Your task to perform on an android device: manage bookmarks in the chrome app Image 0: 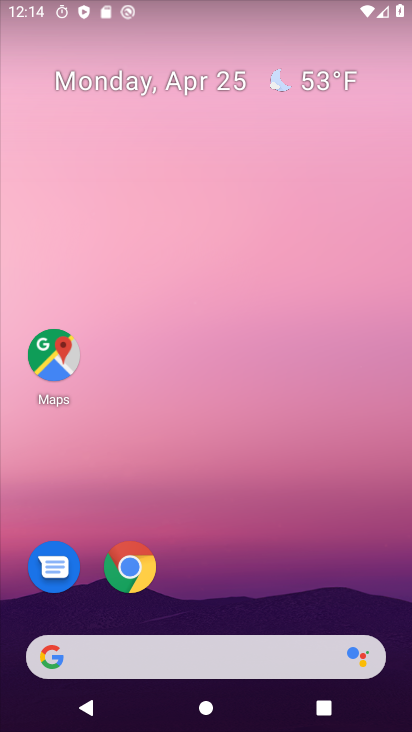
Step 0: click (134, 560)
Your task to perform on an android device: manage bookmarks in the chrome app Image 1: 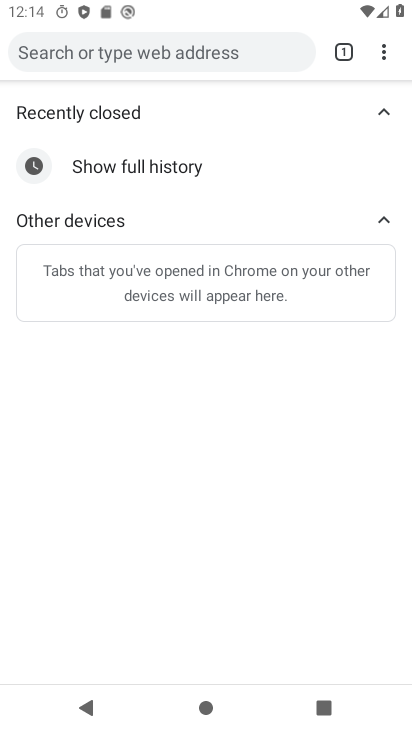
Step 1: click (383, 54)
Your task to perform on an android device: manage bookmarks in the chrome app Image 2: 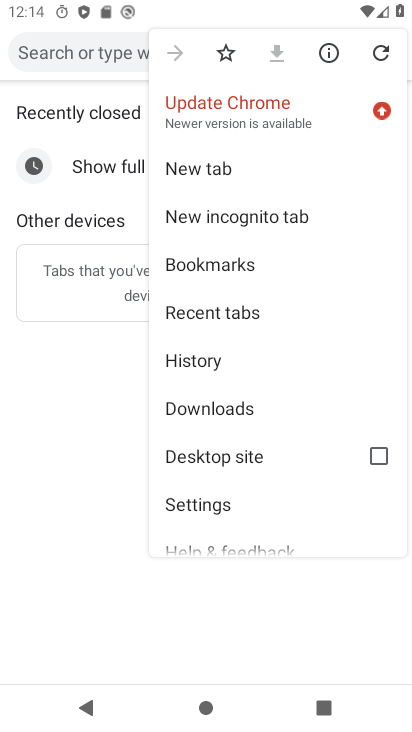
Step 2: click (240, 257)
Your task to perform on an android device: manage bookmarks in the chrome app Image 3: 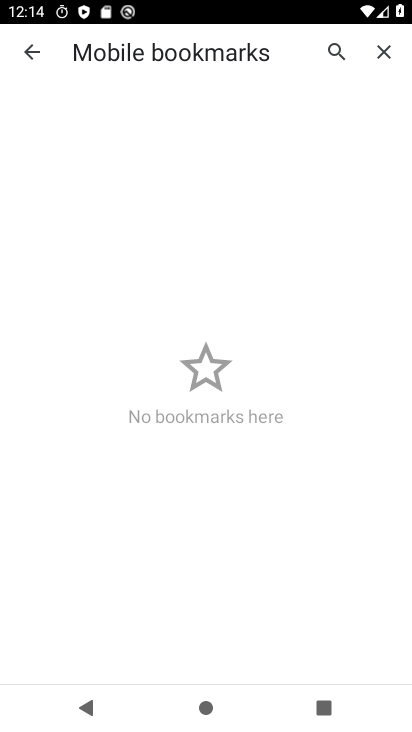
Step 3: task complete